Your task to perform on an android device: What's the weather today? Image 0: 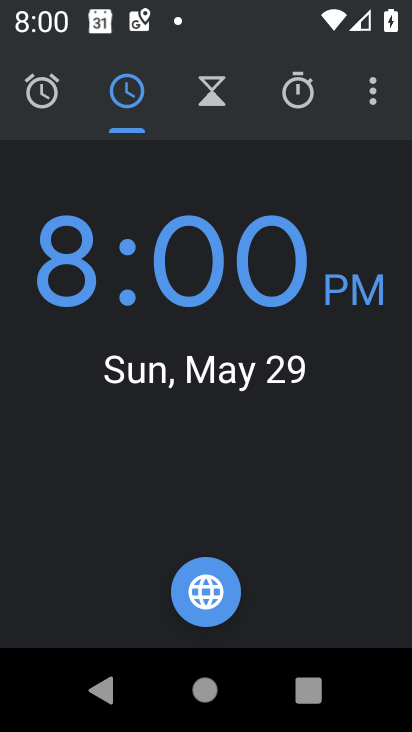
Step 0: press home button
Your task to perform on an android device: What's the weather today? Image 1: 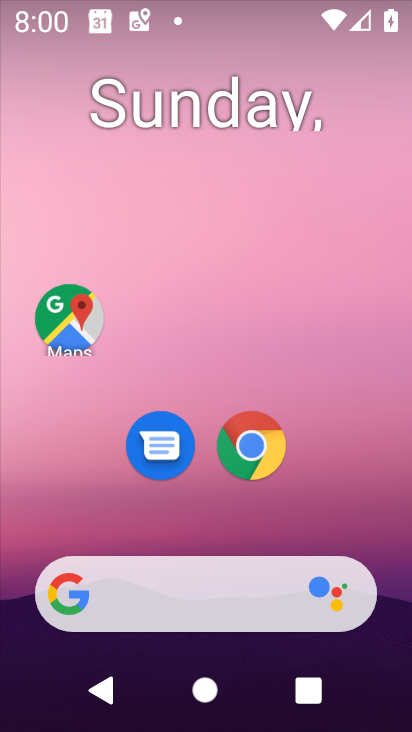
Step 1: click (222, 588)
Your task to perform on an android device: What's the weather today? Image 2: 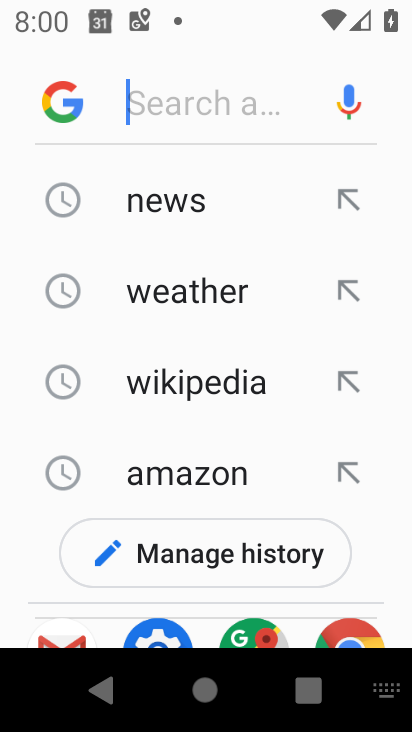
Step 2: click (174, 309)
Your task to perform on an android device: What's the weather today? Image 3: 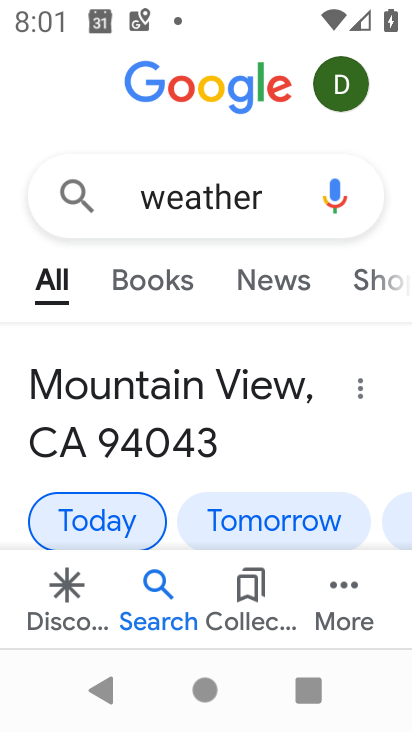
Step 3: task complete